Your task to perform on an android device: open chrome and create a bookmark for the current page Image 0: 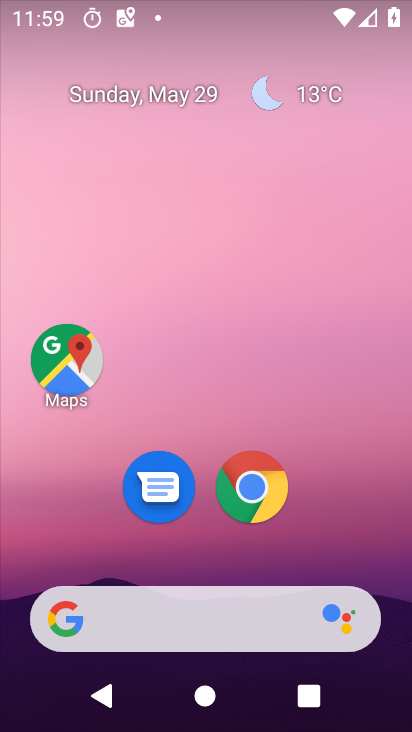
Step 0: click (249, 476)
Your task to perform on an android device: open chrome and create a bookmark for the current page Image 1: 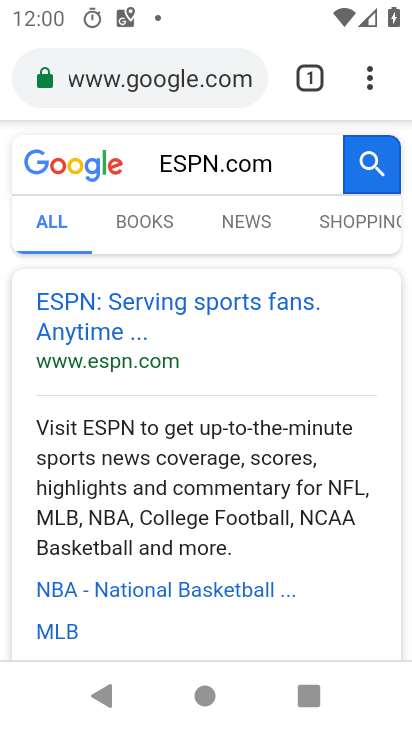
Step 1: click (367, 76)
Your task to perform on an android device: open chrome and create a bookmark for the current page Image 2: 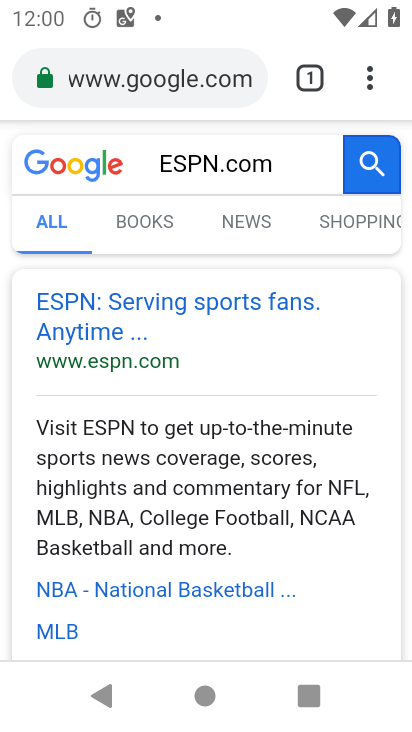
Step 2: click (366, 75)
Your task to perform on an android device: open chrome and create a bookmark for the current page Image 3: 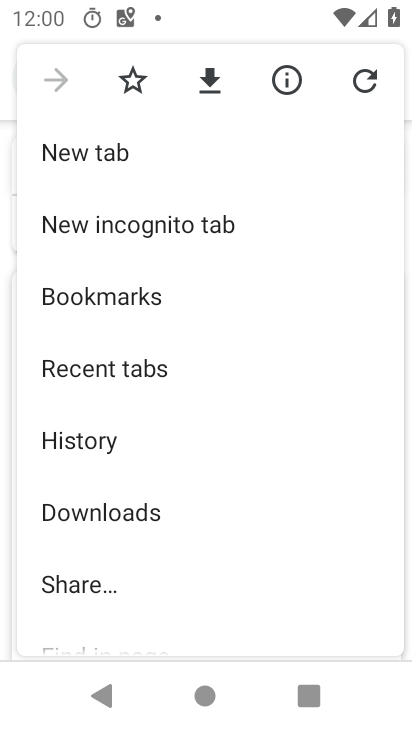
Step 3: click (134, 75)
Your task to perform on an android device: open chrome and create a bookmark for the current page Image 4: 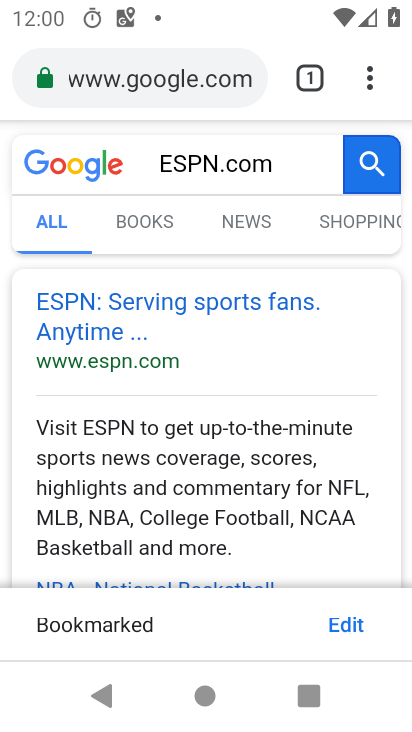
Step 4: task complete